Your task to perform on an android device: Go to CNN.com Image 0: 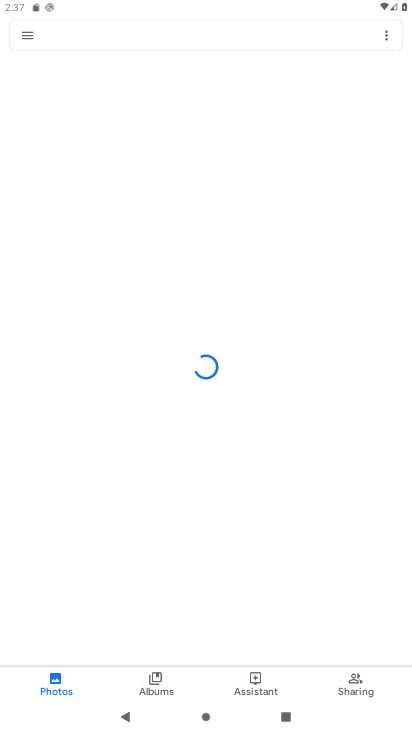
Step 0: drag from (292, 5) to (214, 649)
Your task to perform on an android device: Go to CNN.com Image 1: 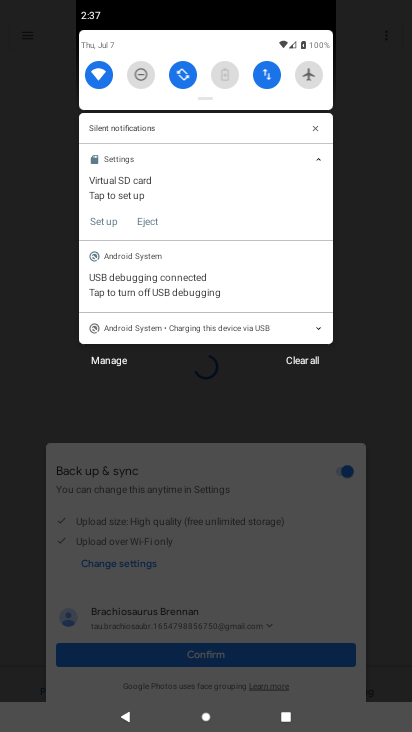
Step 1: click (102, 84)
Your task to perform on an android device: Go to CNN.com Image 2: 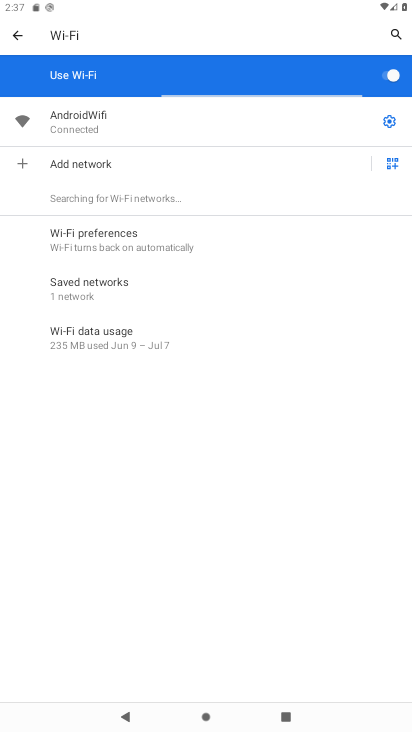
Step 2: task complete